Your task to perform on an android device: toggle wifi Image 0: 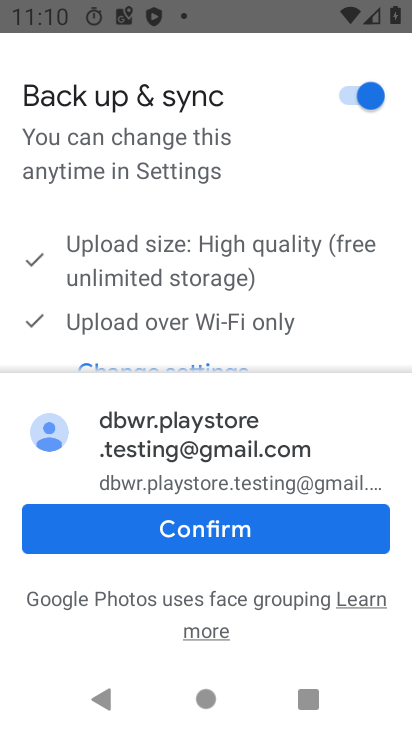
Step 0: press home button
Your task to perform on an android device: toggle wifi Image 1: 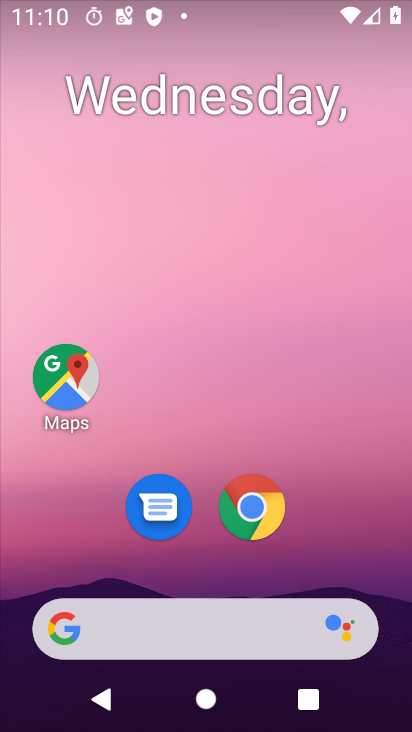
Step 1: drag from (238, 724) to (243, 119)
Your task to perform on an android device: toggle wifi Image 2: 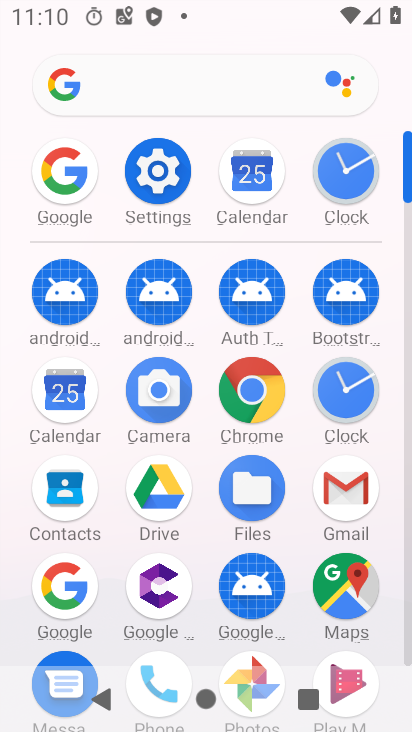
Step 2: click (154, 158)
Your task to perform on an android device: toggle wifi Image 3: 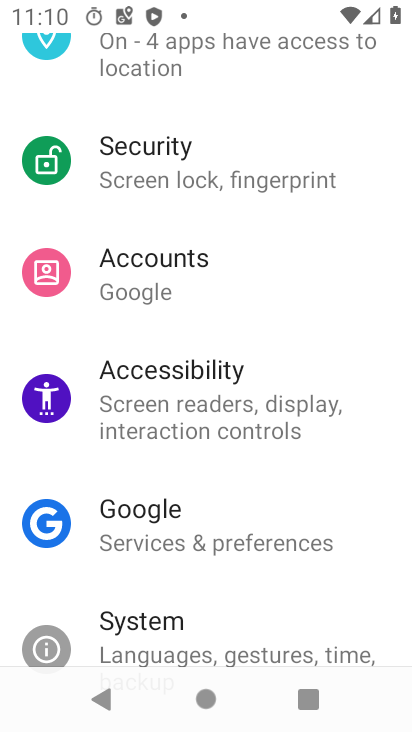
Step 3: drag from (221, 171) to (216, 538)
Your task to perform on an android device: toggle wifi Image 4: 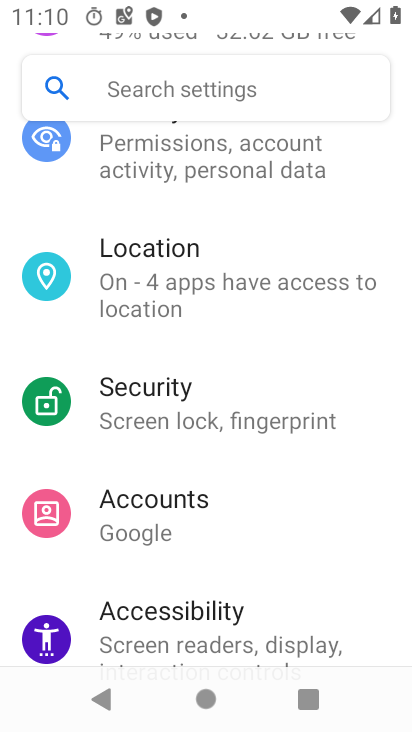
Step 4: drag from (231, 142) to (232, 539)
Your task to perform on an android device: toggle wifi Image 5: 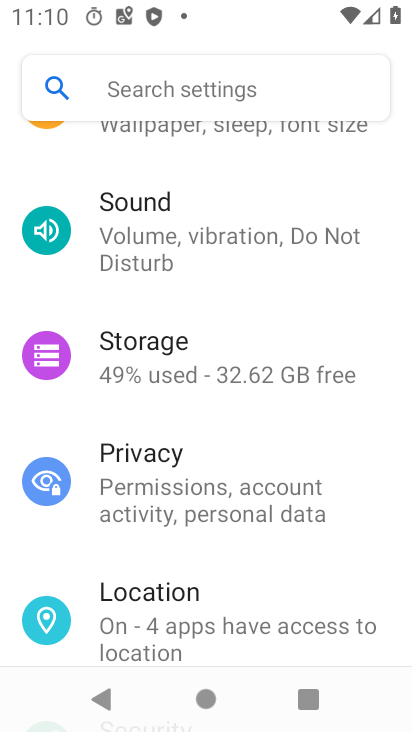
Step 5: drag from (256, 169) to (239, 653)
Your task to perform on an android device: toggle wifi Image 6: 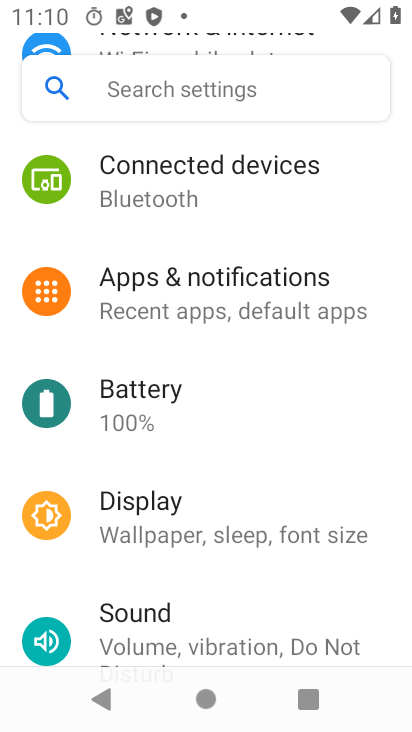
Step 6: drag from (224, 165) to (208, 567)
Your task to perform on an android device: toggle wifi Image 7: 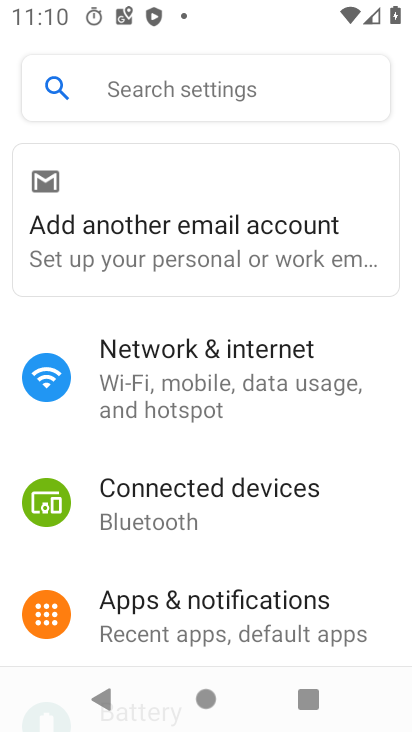
Step 7: click (136, 353)
Your task to perform on an android device: toggle wifi Image 8: 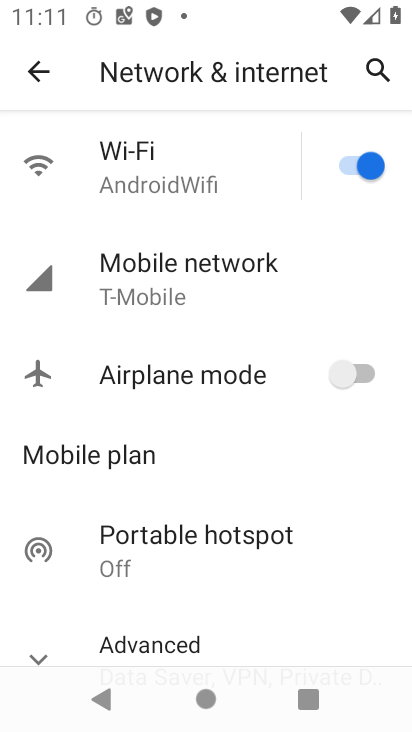
Step 8: click (346, 171)
Your task to perform on an android device: toggle wifi Image 9: 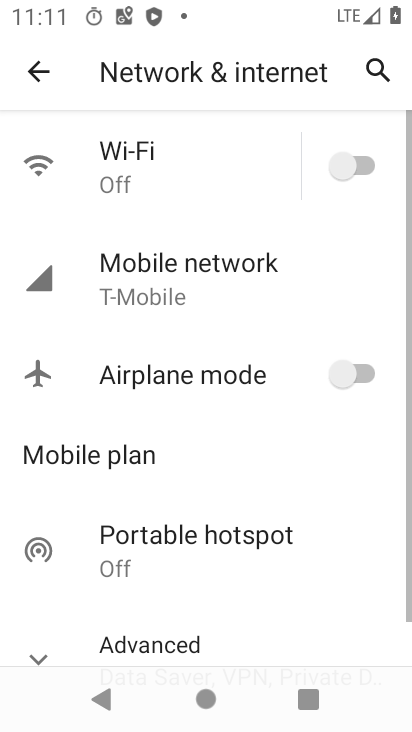
Step 9: task complete